Your task to perform on an android device: empty trash in the gmail app Image 0: 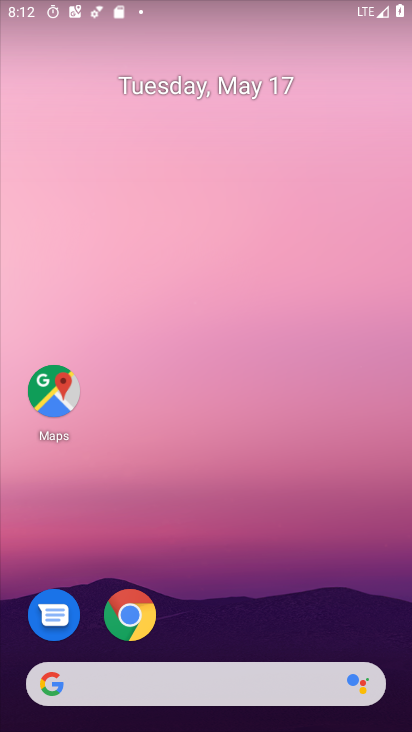
Step 0: drag from (196, 630) to (239, 170)
Your task to perform on an android device: empty trash in the gmail app Image 1: 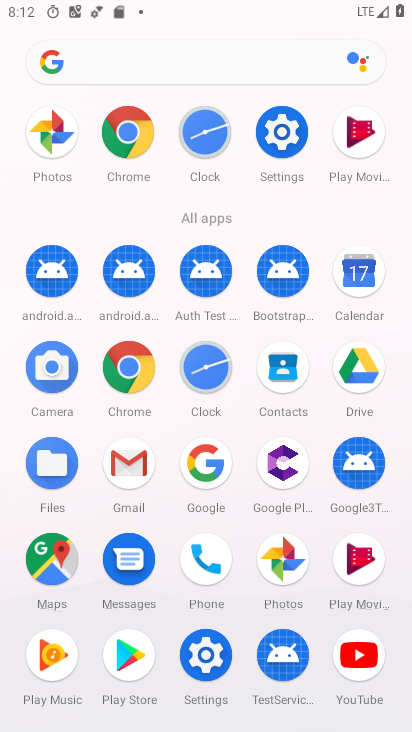
Step 1: click (140, 453)
Your task to perform on an android device: empty trash in the gmail app Image 2: 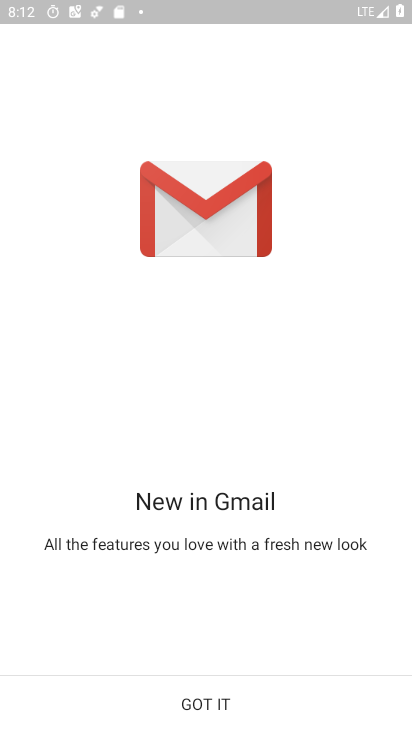
Step 2: click (186, 704)
Your task to perform on an android device: empty trash in the gmail app Image 3: 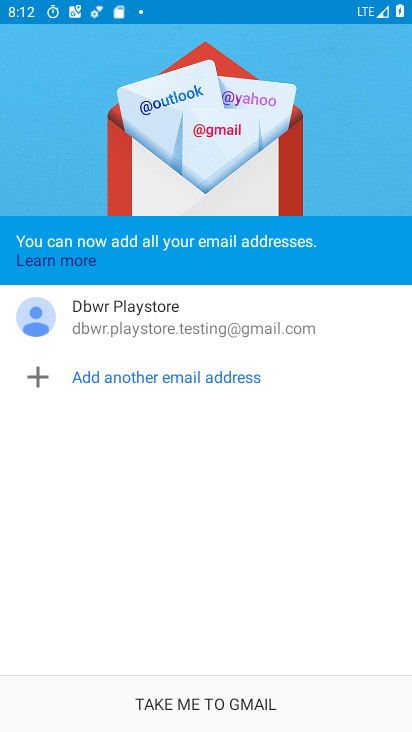
Step 3: click (193, 698)
Your task to perform on an android device: empty trash in the gmail app Image 4: 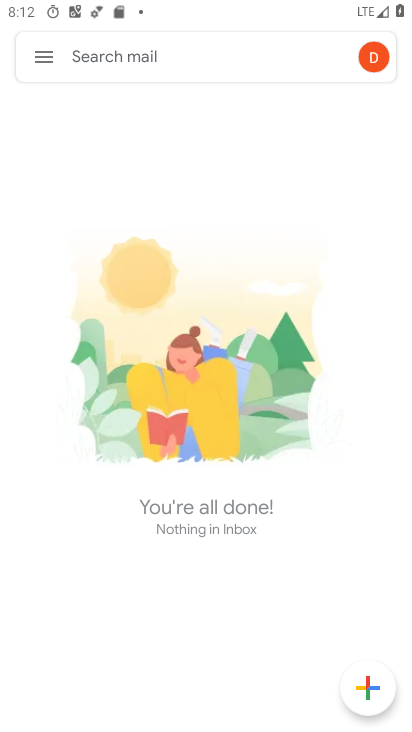
Step 4: click (36, 61)
Your task to perform on an android device: empty trash in the gmail app Image 5: 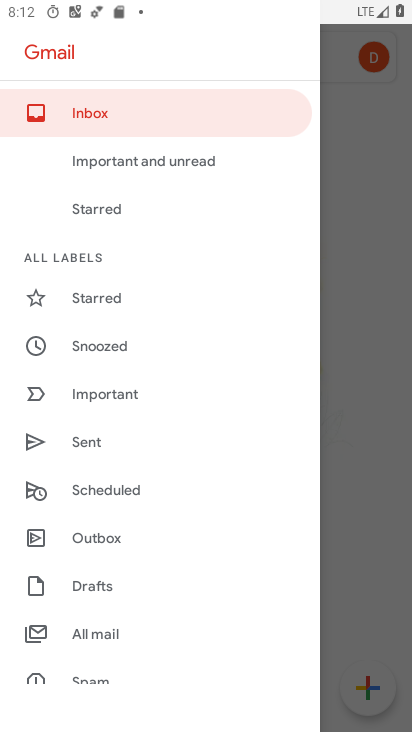
Step 5: drag from (132, 632) to (188, 205)
Your task to perform on an android device: empty trash in the gmail app Image 6: 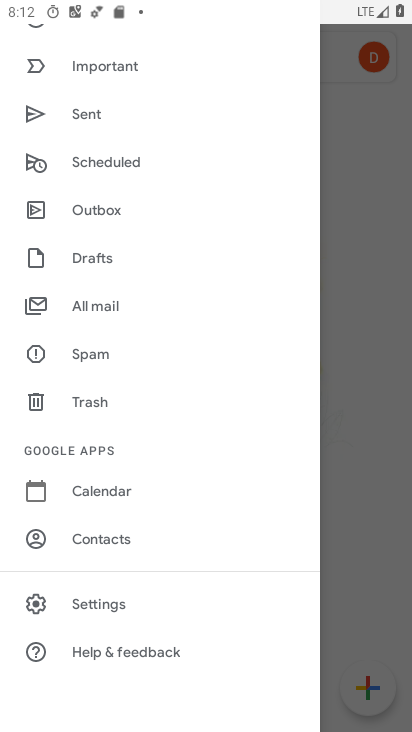
Step 6: click (94, 398)
Your task to perform on an android device: empty trash in the gmail app Image 7: 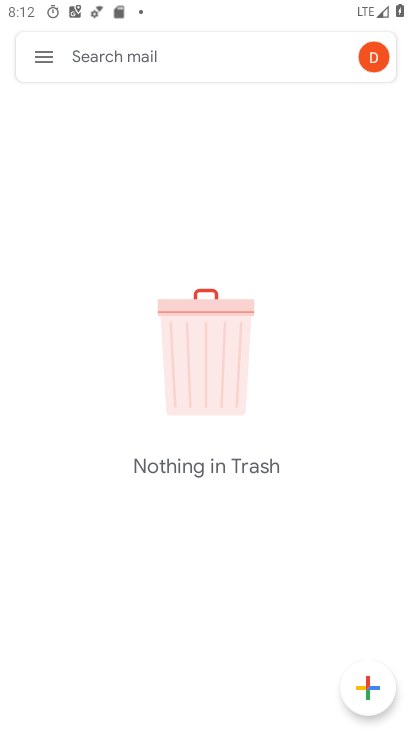
Step 7: task complete